Your task to perform on an android device: toggle improve location accuracy Image 0: 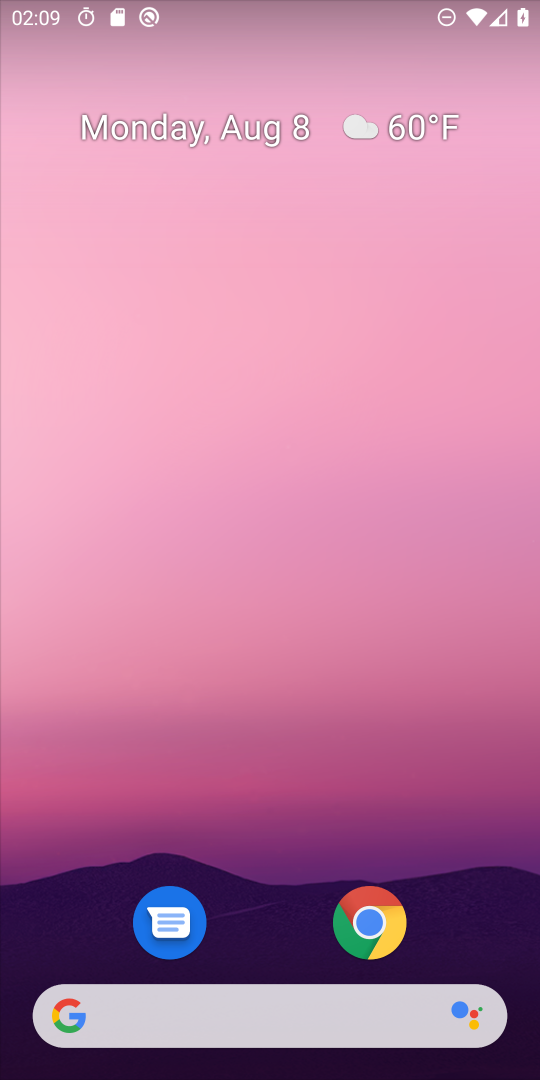
Step 0: drag from (269, 940) to (417, 24)
Your task to perform on an android device: toggle improve location accuracy Image 1: 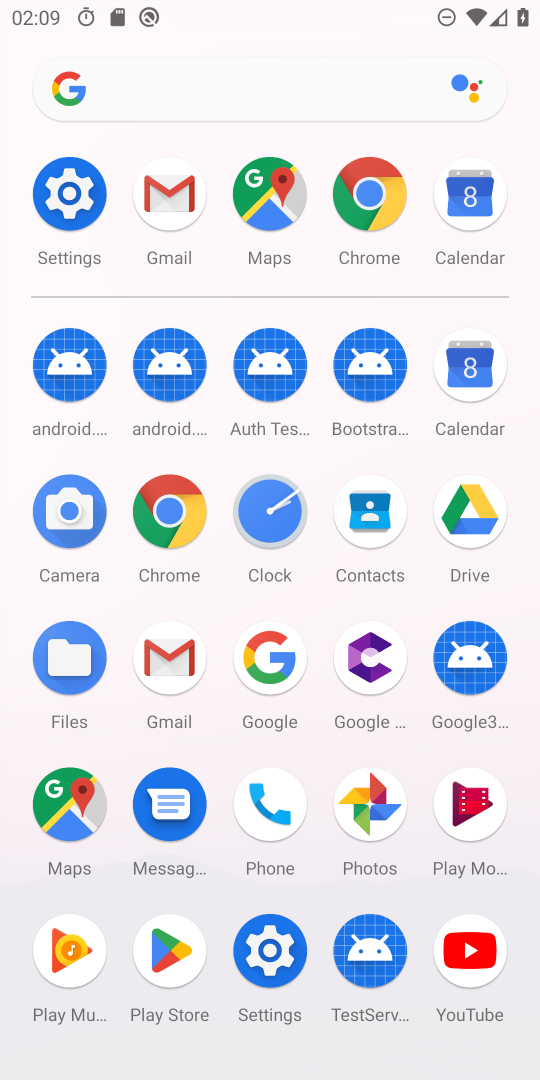
Step 1: click (284, 949)
Your task to perform on an android device: toggle improve location accuracy Image 2: 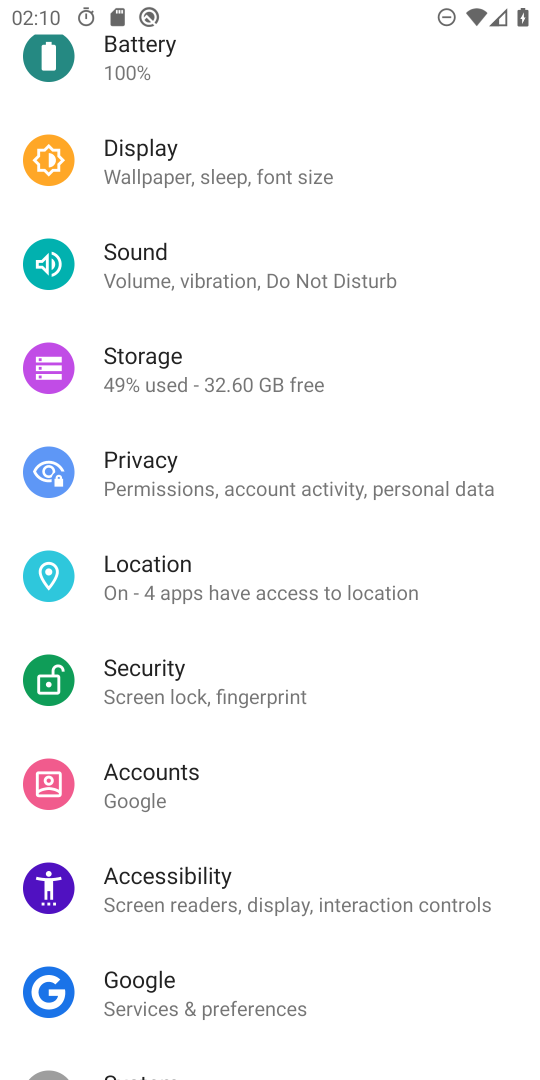
Step 2: click (242, 581)
Your task to perform on an android device: toggle improve location accuracy Image 3: 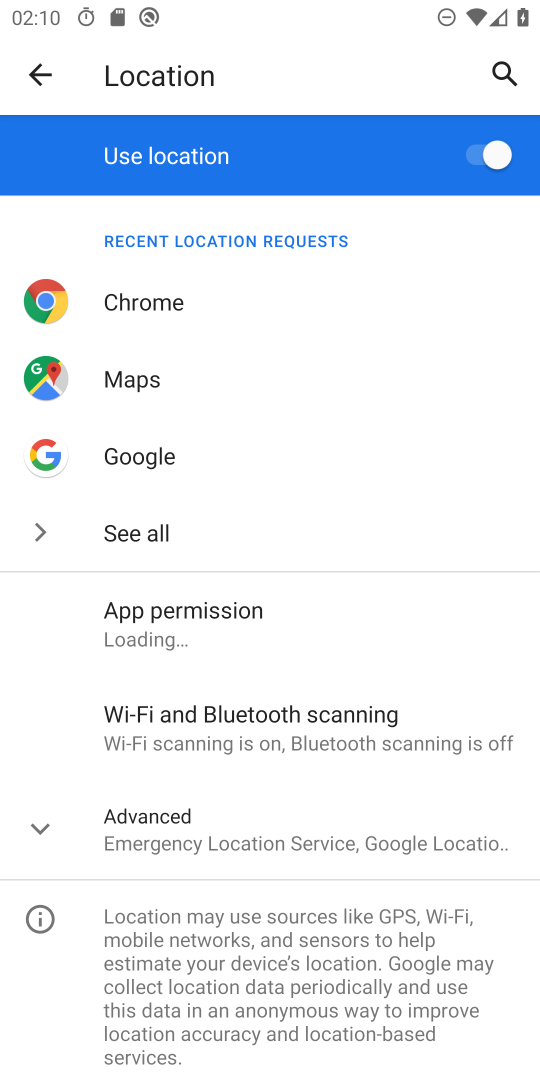
Step 3: click (197, 844)
Your task to perform on an android device: toggle improve location accuracy Image 4: 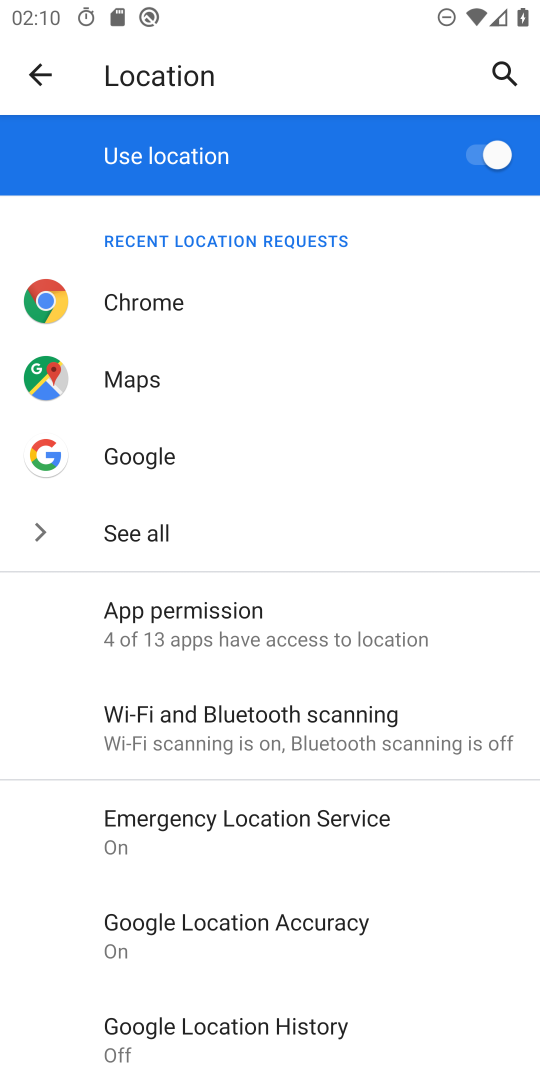
Step 4: click (311, 915)
Your task to perform on an android device: toggle improve location accuracy Image 5: 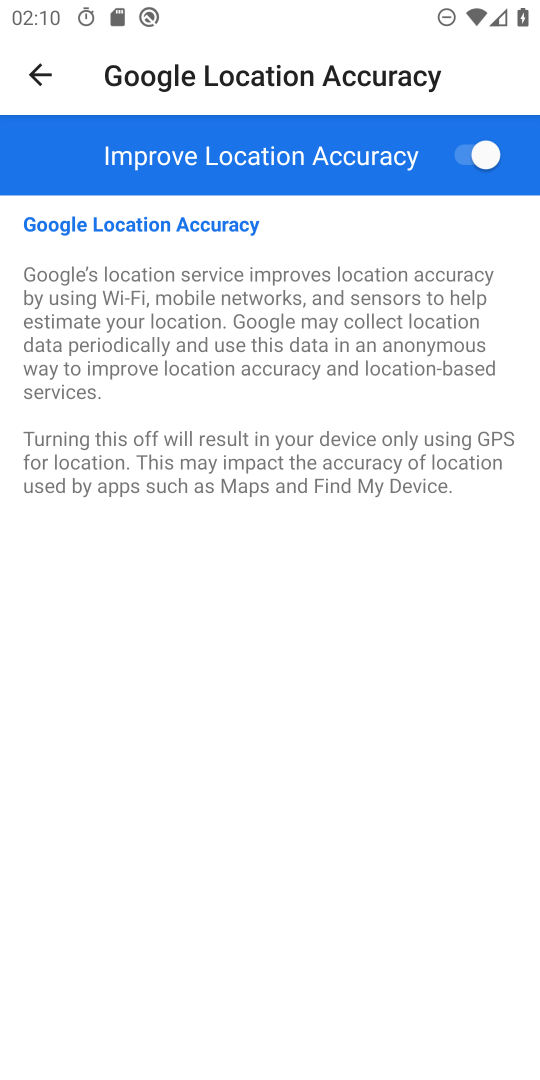
Step 5: click (469, 142)
Your task to perform on an android device: toggle improve location accuracy Image 6: 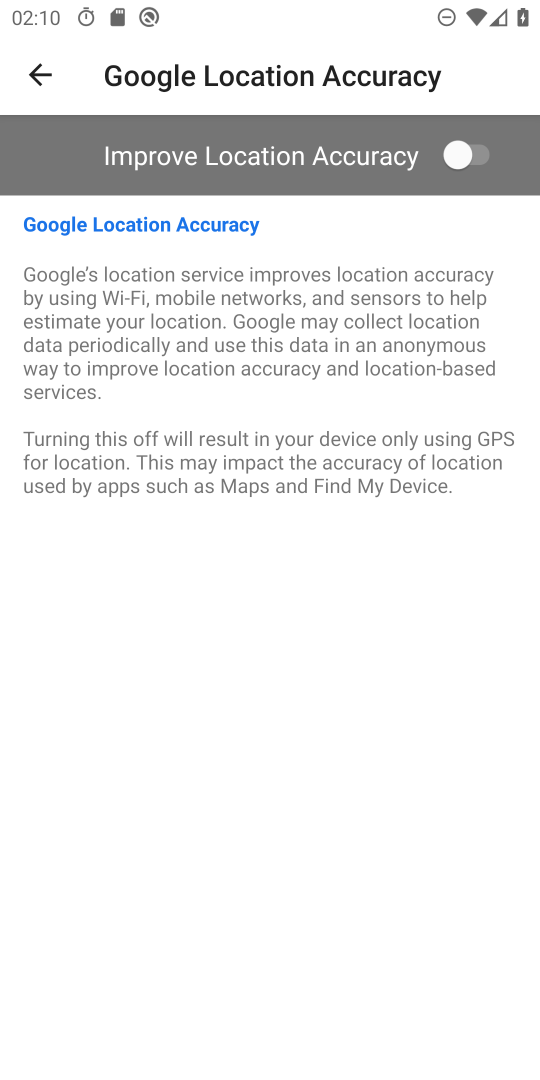
Step 6: task complete